Your task to perform on an android device: Show me popular games on the Play Store Image 0: 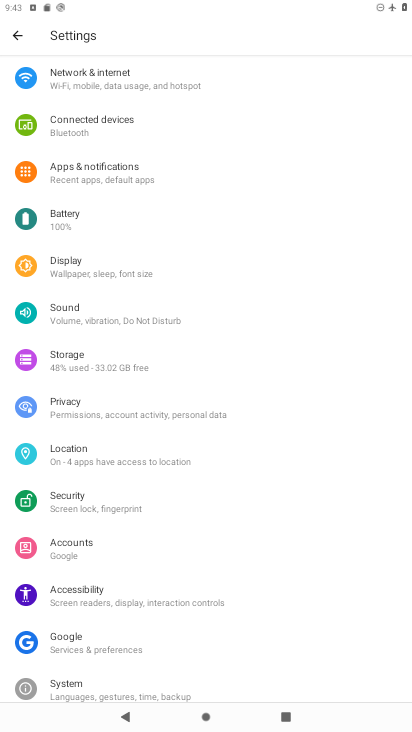
Step 0: press home button
Your task to perform on an android device: Show me popular games on the Play Store Image 1: 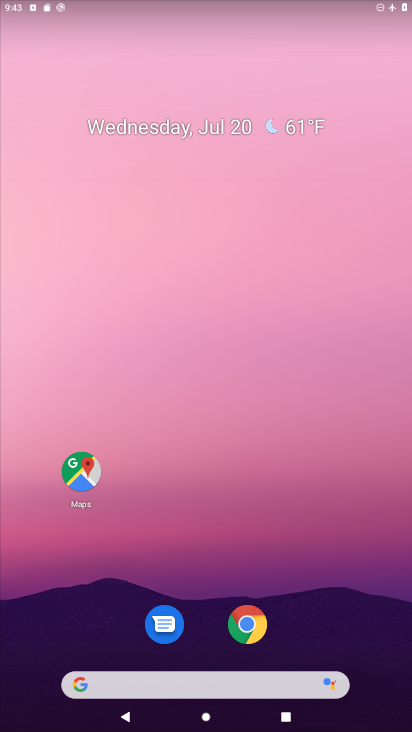
Step 1: drag from (189, 582) to (213, 225)
Your task to perform on an android device: Show me popular games on the Play Store Image 2: 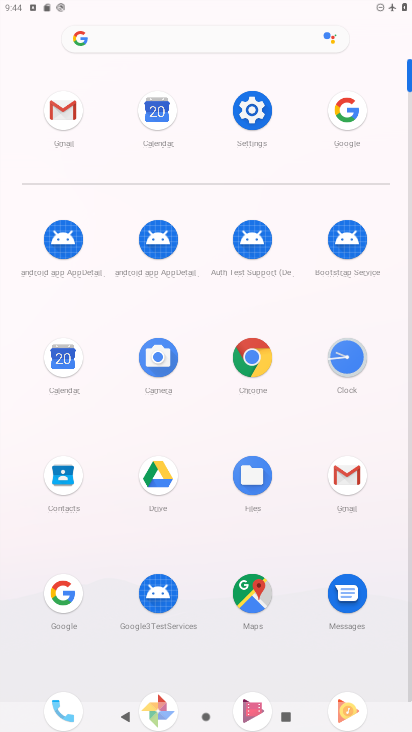
Step 2: drag from (207, 590) to (227, 372)
Your task to perform on an android device: Show me popular games on the Play Store Image 3: 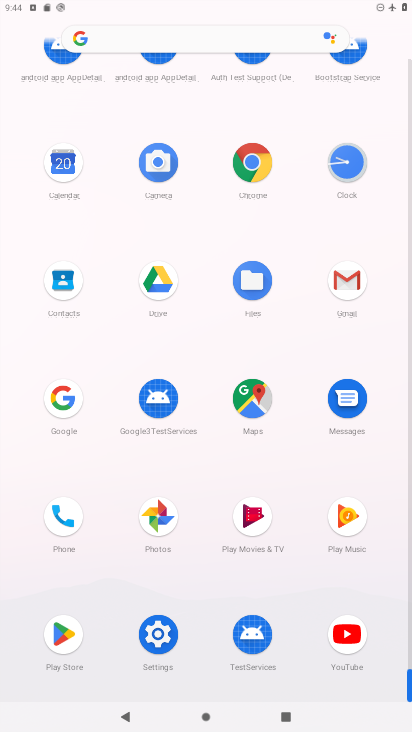
Step 3: drag from (202, 591) to (242, 336)
Your task to perform on an android device: Show me popular games on the Play Store Image 4: 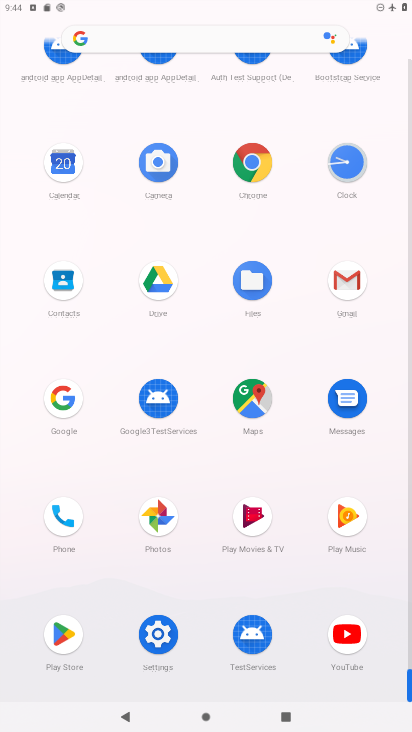
Step 4: click (64, 631)
Your task to perform on an android device: Show me popular games on the Play Store Image 5: 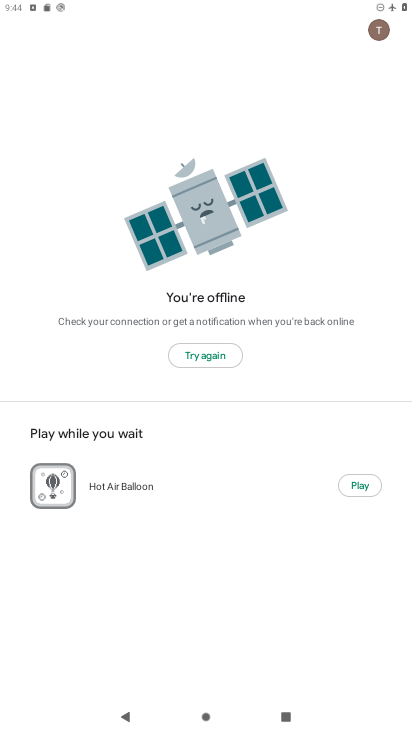
Step 5: task complete